Your task to perform on an android device: Open Chrome and go to settings Image 0: 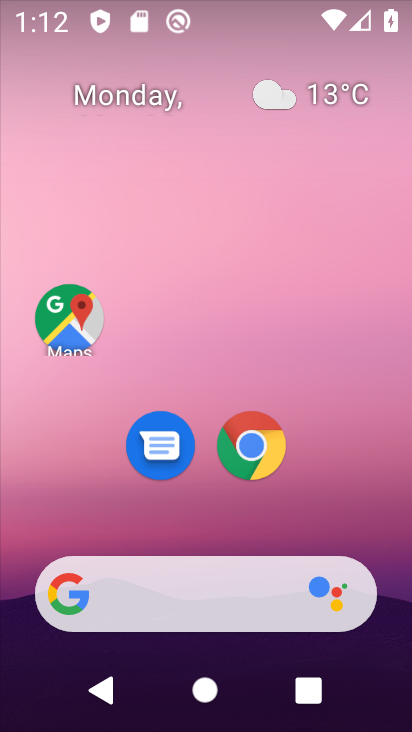
Step 0: drag from (282, 459) to (247, 451)
Your task to perform on an android device: Open Chrome and go to settings Image 1: 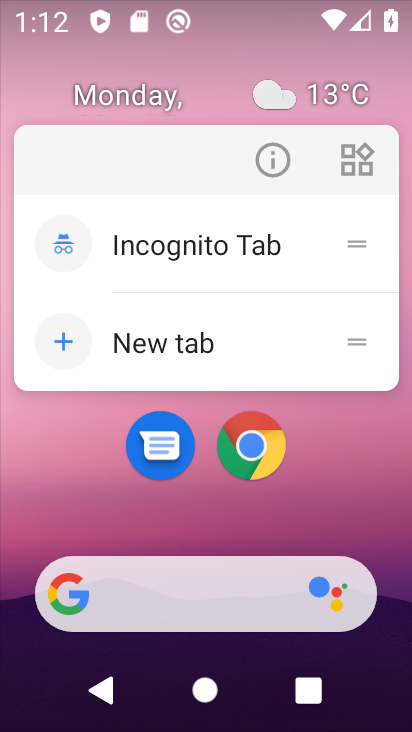
Step 1: click (247, 451)
Your task to perform on an android device: Open Chrome and go to settings Image 2: 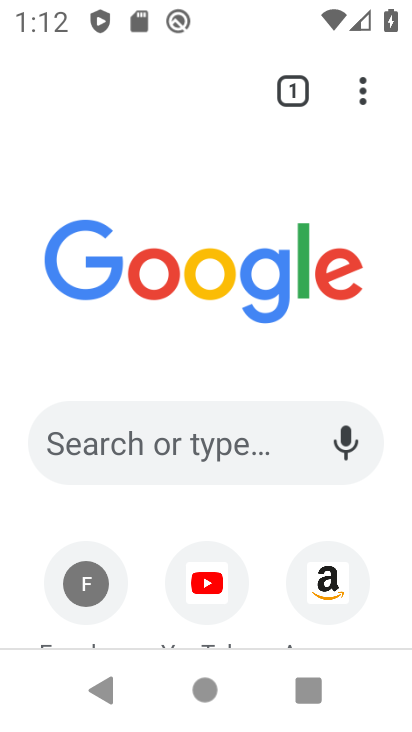
Step 2: click (372, 76)
Your task to perform on an android device: Open Chrome and go to settings Image 3: 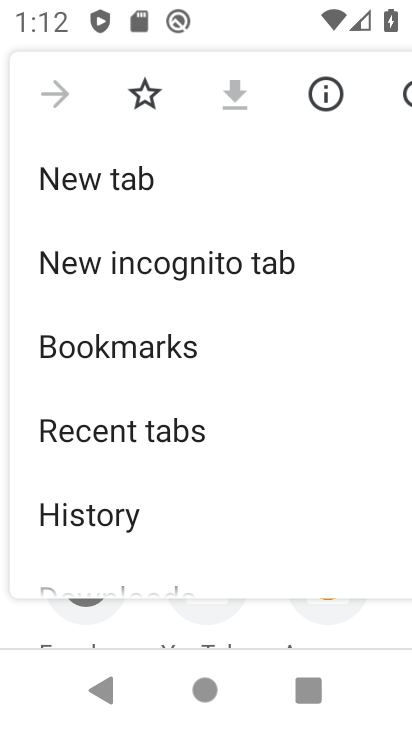
Step 3: drag from (159, 576) to (276, 126)
Your task to perform on an android device: Open Chrome and go to settings Image 4: 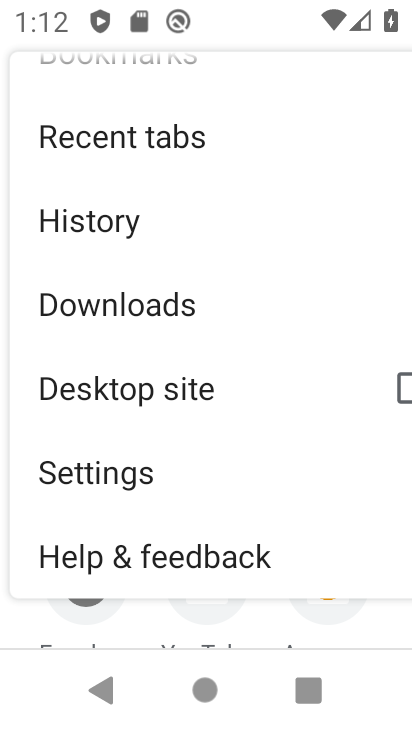
Step 4: click (95, 474)
Your task to perform on an android device: Open Chrome and go to settings Image 5: 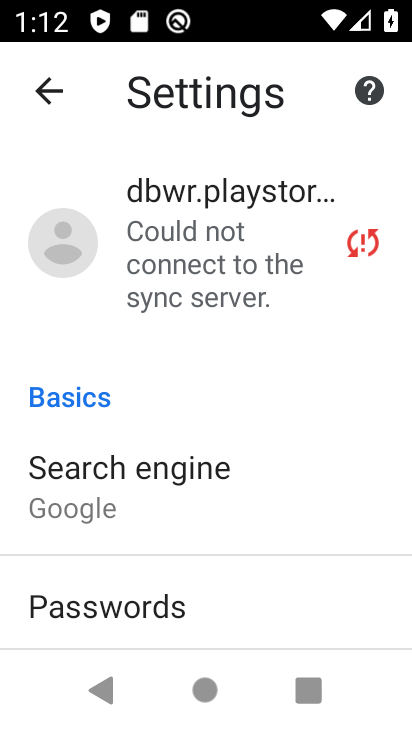
Step 5: task complete